Your task to perform on an android device: find which apps use the phone's location Image 0: 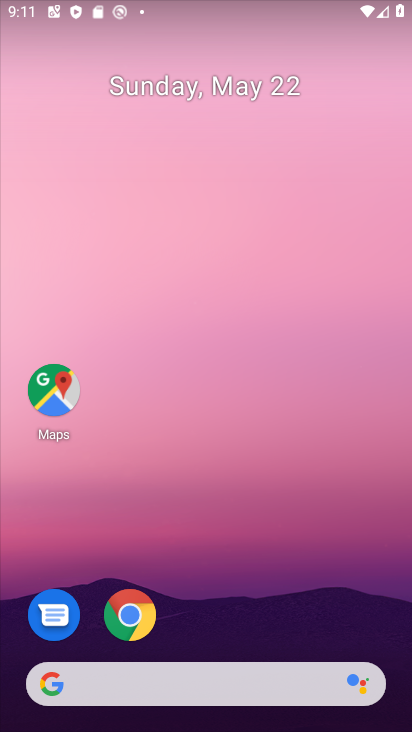
Step 0: drag from (297, 586) to (298, 329)
Your task to perform on an android device: find which apps use the phone's location Image 1: 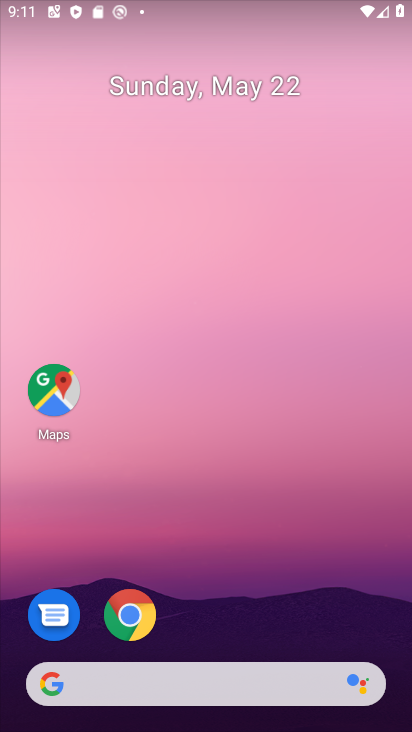
Step 1: drag from (289, 581) to (273, 258)
Your task to perform on an android device: find which apps use the phone's location Image 2: 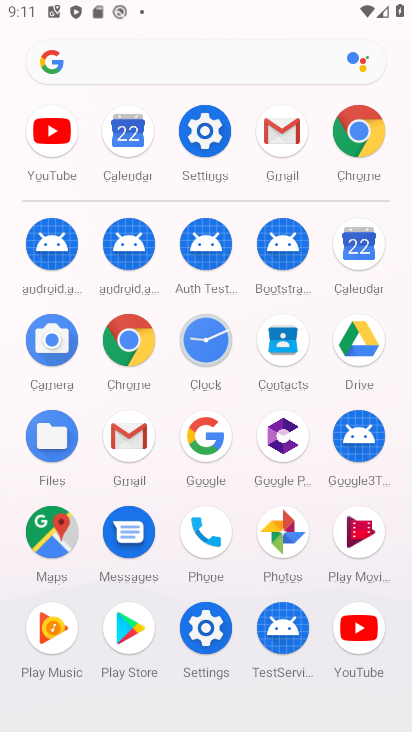
Step 2: click (212, 118)
Your task to perform on an android device: find which apps use the phone's location Image 3: 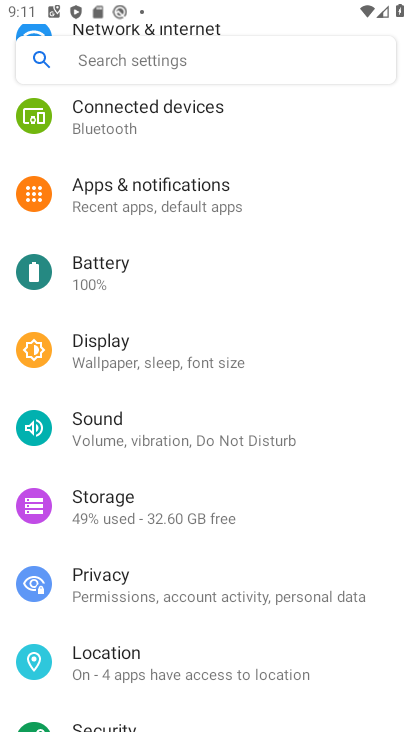
Step 3: drag from (170, 528) to (244, 199)
Your task to perform on an android device: find which apps use the phone's location Image 4: 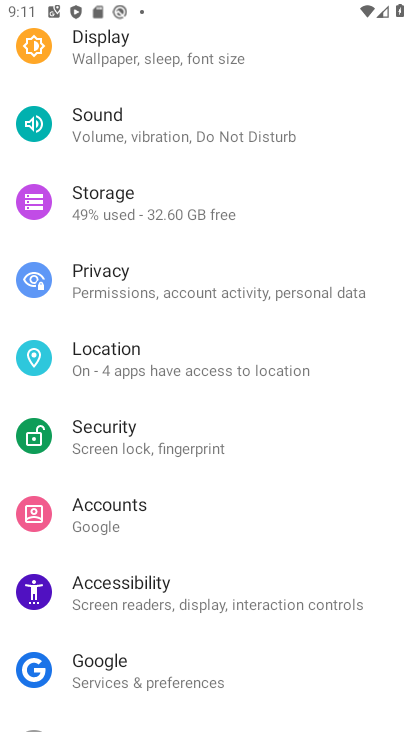
Step 4: click (136, 340)
Your task to perform on an android device: find which apps use the phone's location Image 5: 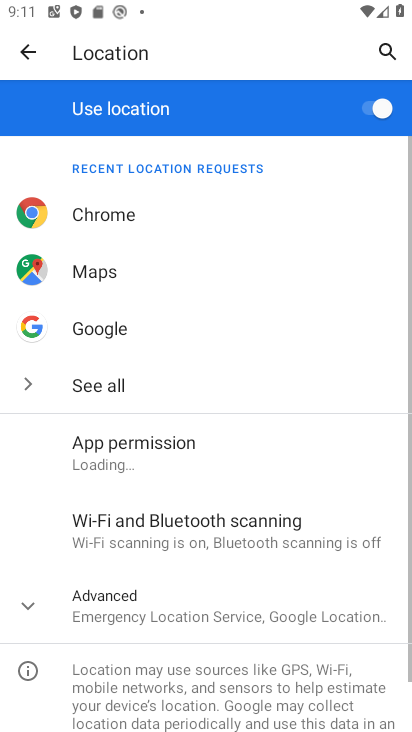
Step 5: task complete